Your task to perform on an android device: change timer sound Image 0: 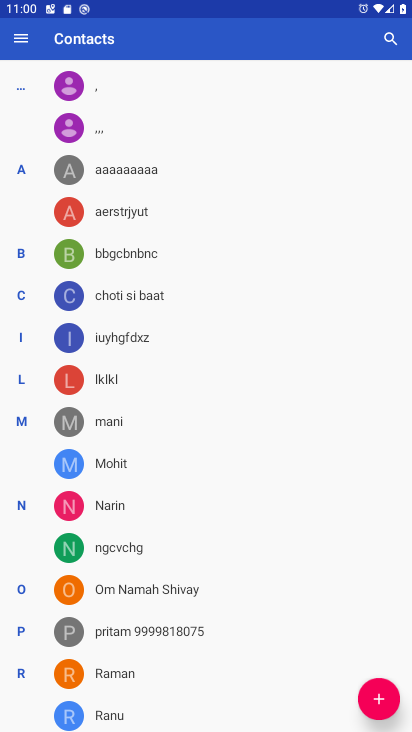
Step 0: press home button
Your task to perform on an android device: change timer sound Image 1: 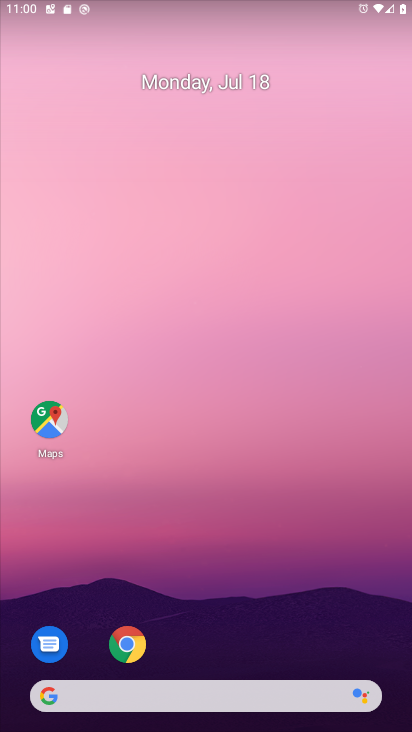
Step 1: drag from (239, 662) to (239, 121)
Your task to perform on an android device: change timer sound Image 2: 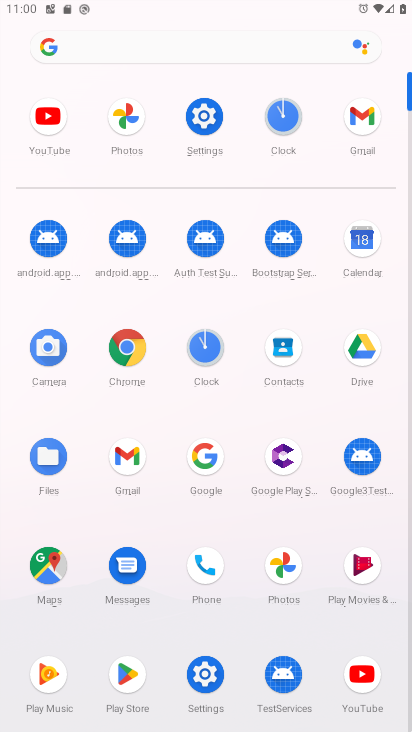
Step 2: click (209, 146)
Your task to perform on an android device: change timer sound Image 3: 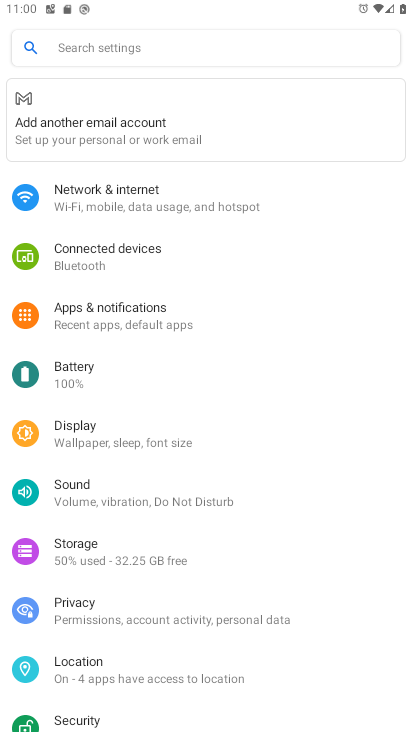
Step 3: click (101, 487)
Your task to perform on an android device: change timer sound Image 4: 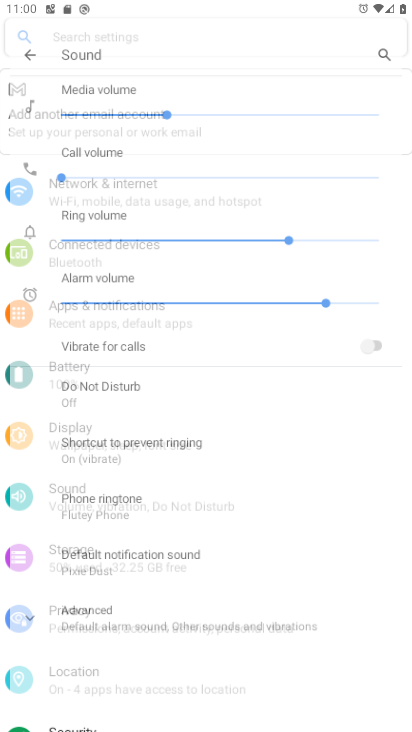
Step 4: task complete